Your task to perform on an android device: Show me productivity apps on the Play Store Image 0: 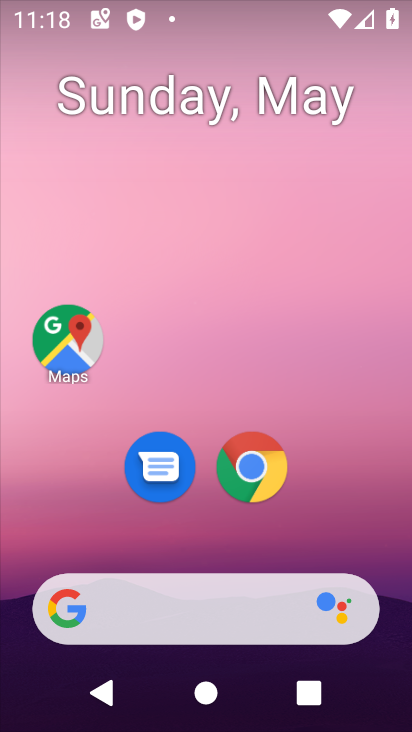
Step 0: drag from (380, 567) to (410, 527)
Your task to perform on an android device: Show me productivity apps on the Play Store Image 1: 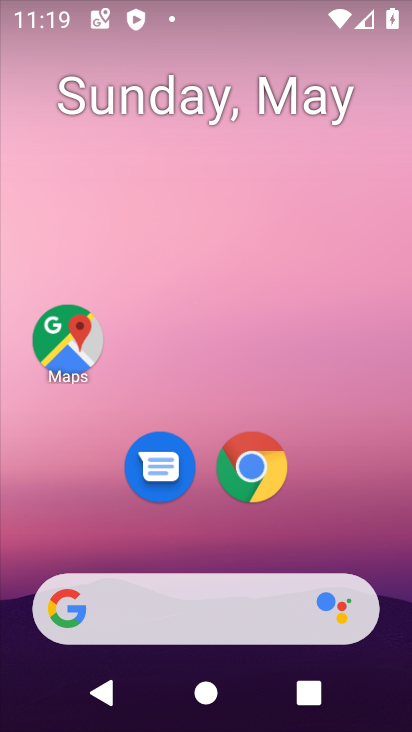
Step 1: drag from (371, 554) to (410, 583)
Your task to perform on an android device: Show me productivity apps on the Play Store Image 2: 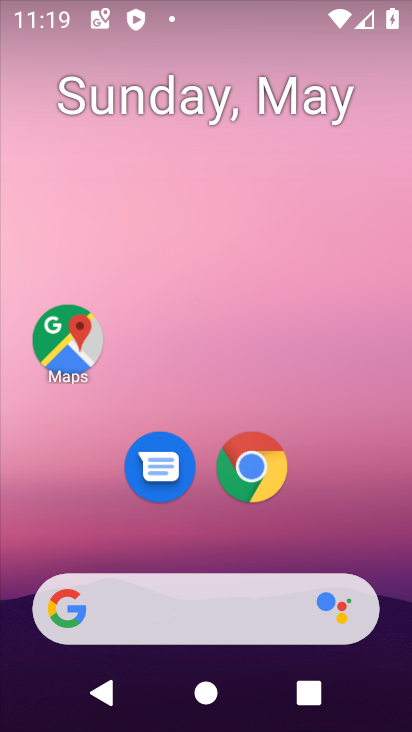
Step 2: drag from (408, 579) to (411, 363)
Your task to perform on an android device: Show me productivity apps on the Play Store Image 3: 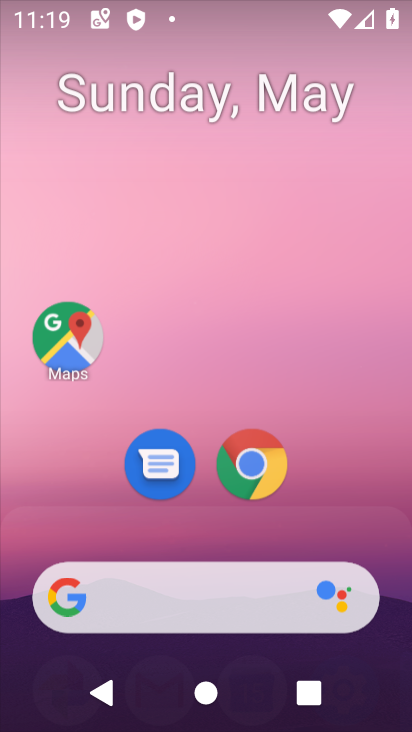
Step 3: drag from (366, 528) to (348, 4)
Your task to perform on an android device: Show me productivity apps on the Play Store Image 4: 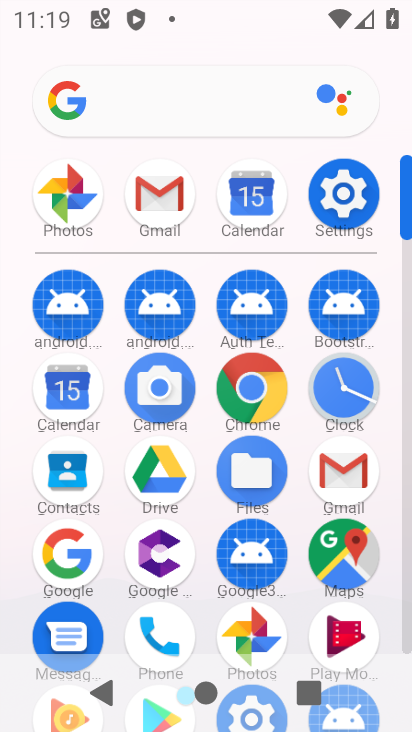
Step 4: drag from (402, 544) to (408, 466)
Your task to perform on an android device: Show me productivity apps on the Play Store Image 5: 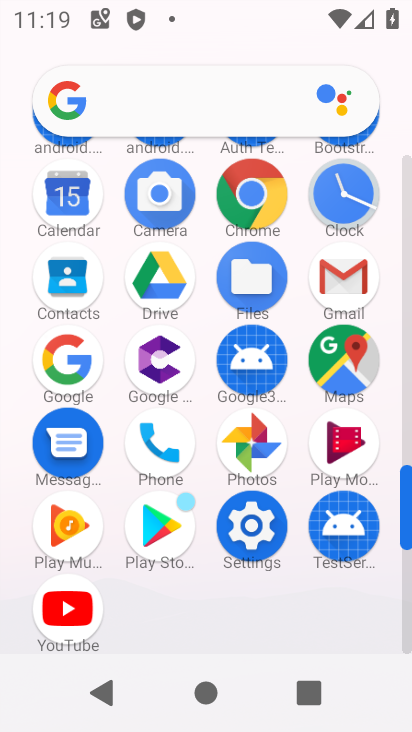
Step 5: click (166, 536)
Your task to perform on an android device: Show me productivity apps on the Play Store Image 6: 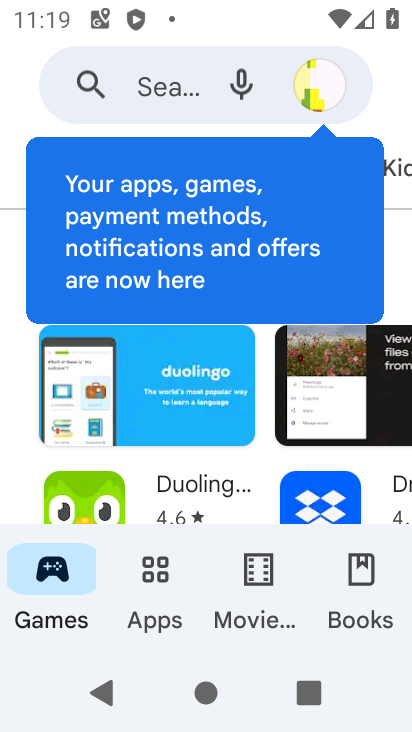
Step 6: click (148, 604)
Your task to perform on an android device: Show me productivity apps on the Play Store Image 7: 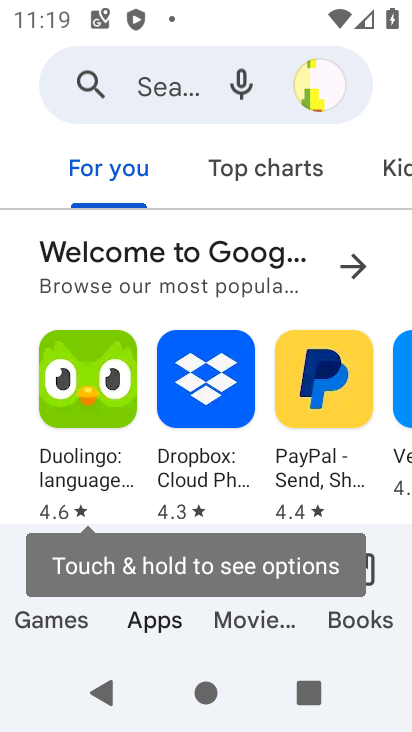
Step 7: drag from (323, 175) to (10, 219)
Your task to perform on an android device: Show me productivity apps on the Play Store Image 8: 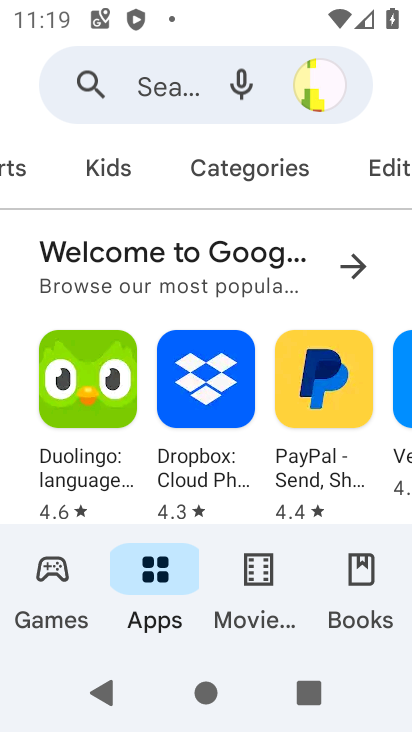
Step 8: click (236, 175)
Your task to perform on an android device: Show me productivity apps on the Play Store Image 9: 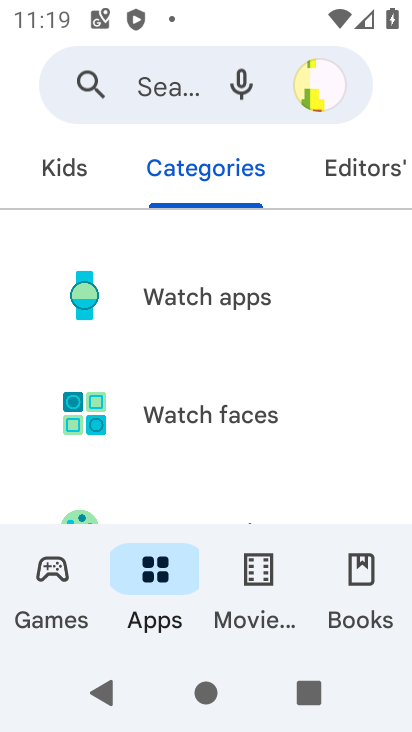
Step 9: drag from (242, 469) to (245, 113)
Your task to perform on an android device: Show me productivity apps on the Play Store Image 10: 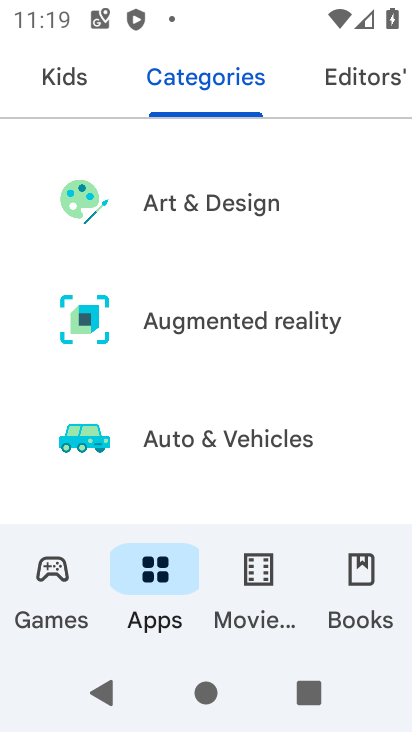
Step 10: drag from (212, 436) to (225, 58)
Your task to perform on an android device: Show me productivity apps on the Play Store Image 11: 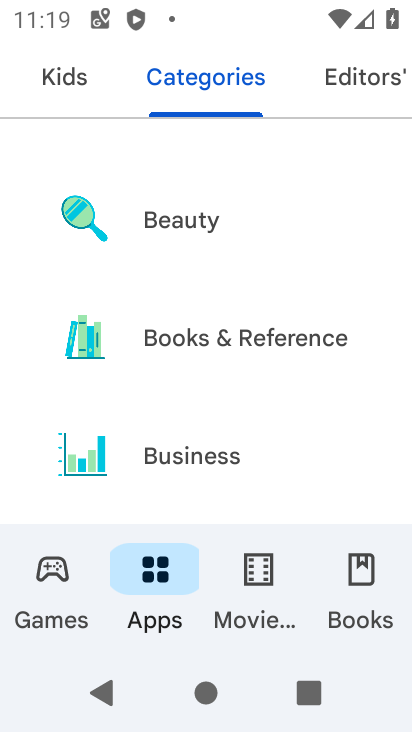
Step 11: drag from (232, 427) to (248, 36)
Your task to perform on an android device: Show me productivity apps on the Play Store Image 12: 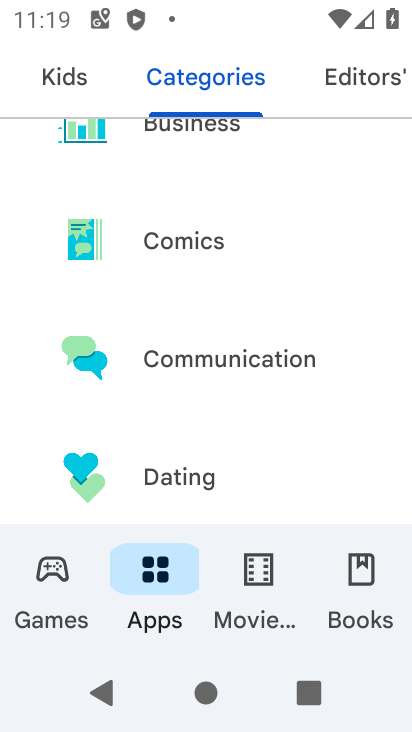
Step 12: drag from (224, 431) to (241, 124)
Your task to perform on an android device: Show me productivity apps on the Play Store Image 13: 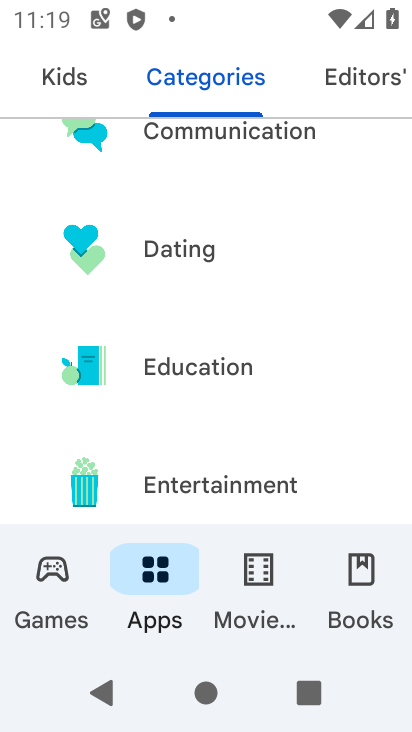
Step 13: drag from (201, 378) to (202, 125)
Your task to perform on an android device: Show me productivity apps on the Play Store Image 14: 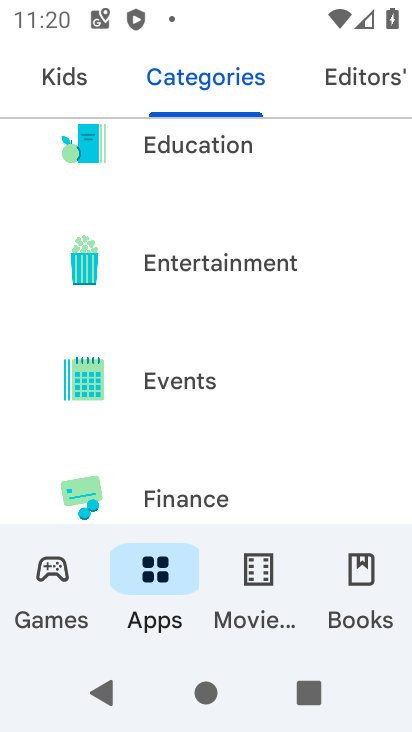
Step 14: drag from (202, 434) to (210, 156)
Your task to perform on an android device: Show me productivity apps on the Play Store Image 15: 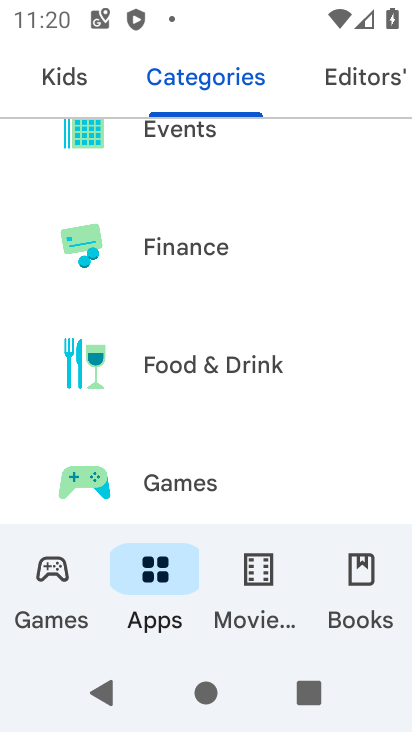
Step 15: drag from (213, 456) to (228, 149)
Your task to perform on an android device: Show me productivity apps on the Play Store Image 16: 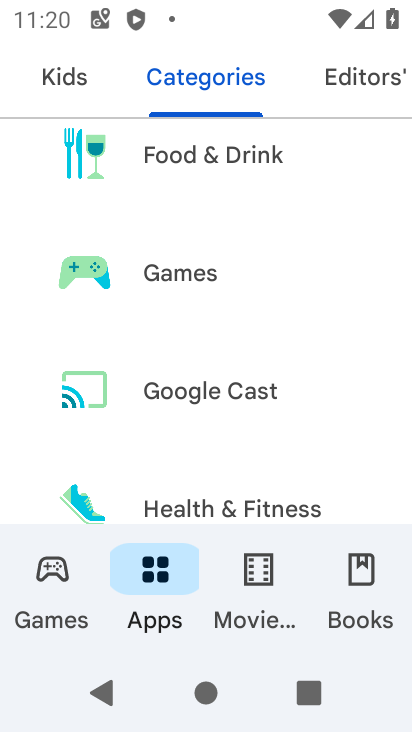
Step 16: drag from (225, 447) to (220, 170)
Your task to perform on an android device: Show me productivity apps on the Play Store Image 17: 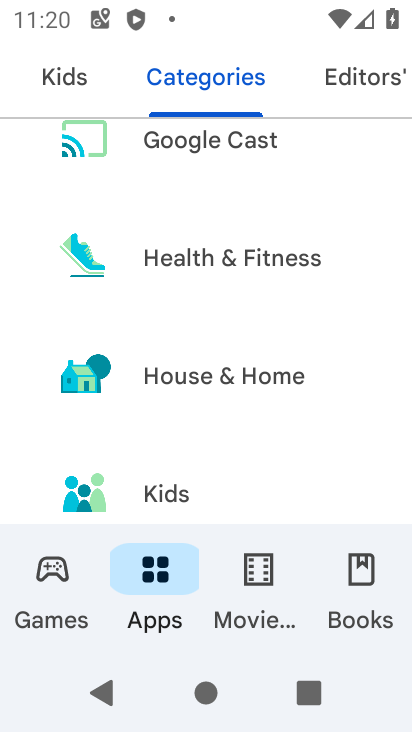
Step 17: drag from (212, 420) to (204, 159)
Your task to perform on an android device: Show me productivity apps on the Play Store Image 18: 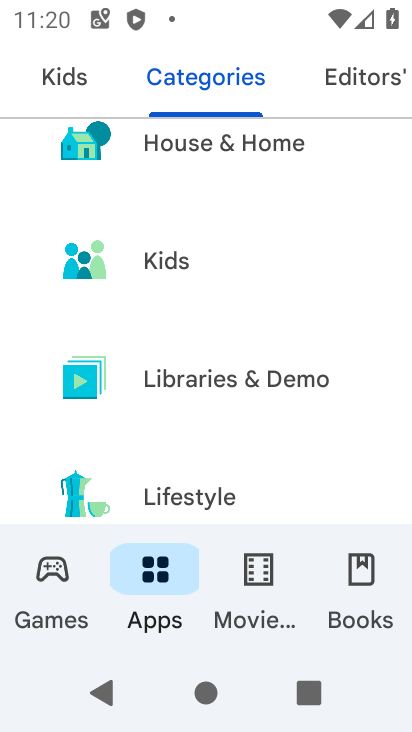
Step 18: drag from (194, 418) to (197, 152)
Your task to perform on an android device: Show me productivity apps on the Play Store Image 19: 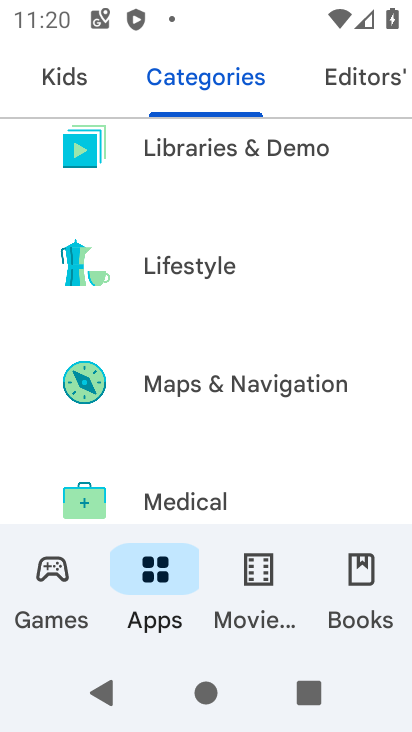
Step 19: drag from (213, 405) to (219, 148)
Your task to perform on an android device: Show me productivity apps on the Play Store Image 20: 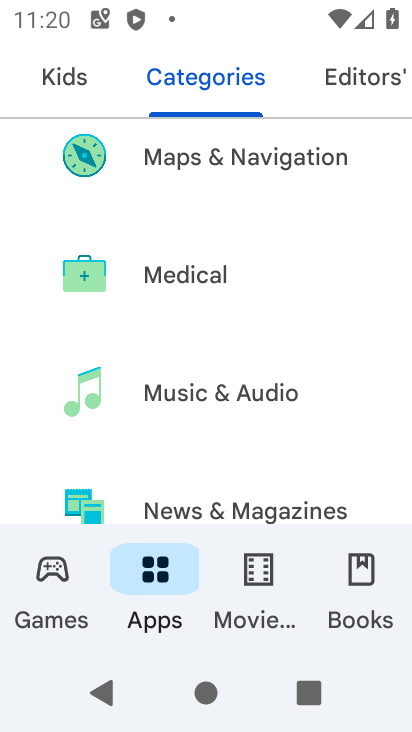
Step 20: drag from (218, 428) to (217, 216)
Your task to perform on an android device: Show me productivity apps on the Play Store Image 21: 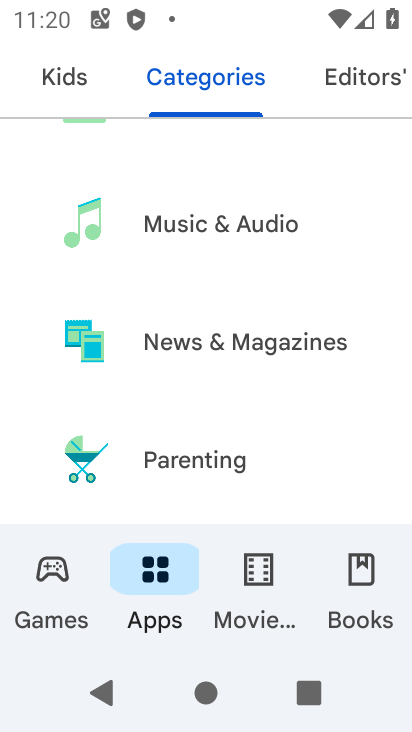
Step 21: drag from (217, 441) to (233, 140)
Your task to perform on an android device: Show me productivity apps on the Play Store Image 22: 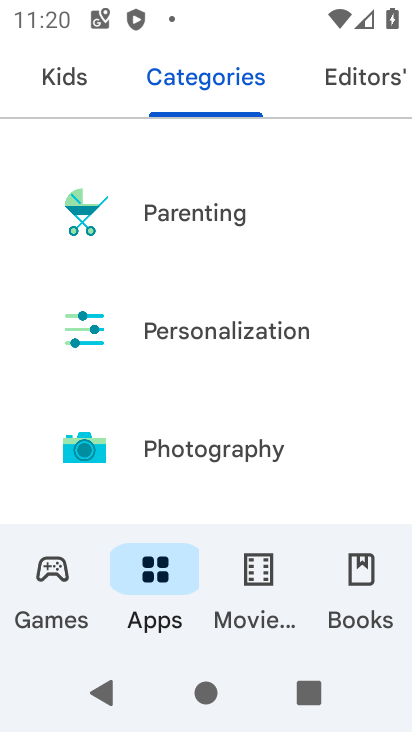
Step 22: drag from (218, 448) to (242, 160)
Your task to perform on an android device: Show me productivity apps on the Play Store Image 23: 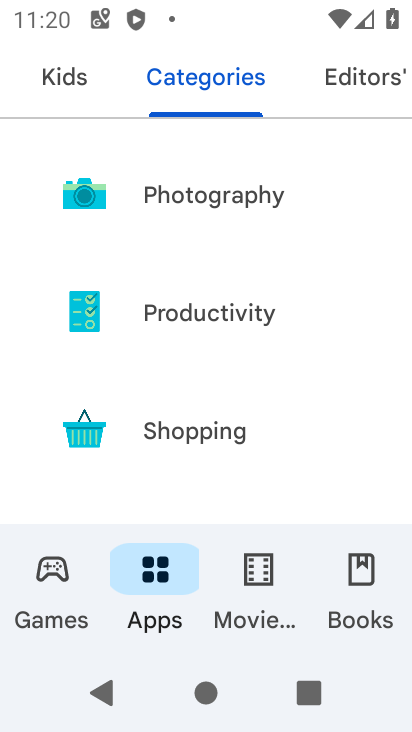
Step 23: click (217, 312)
Your task to perform on an android device: Show me productivity apps on the Play Store Image 24: 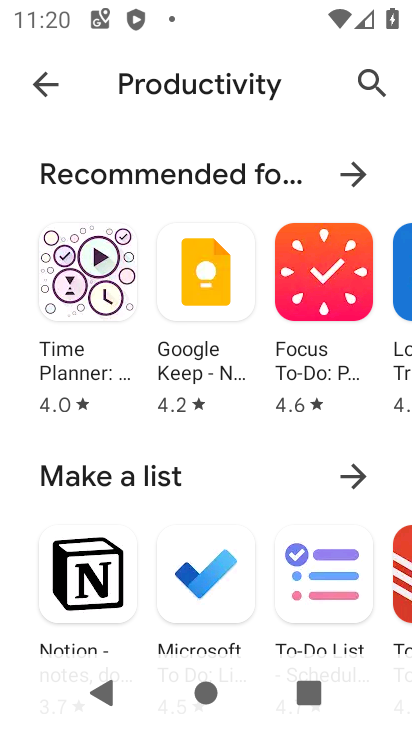
Step 24: task complete